Your task to perform on an android device: Open Reddit.com Image 0: 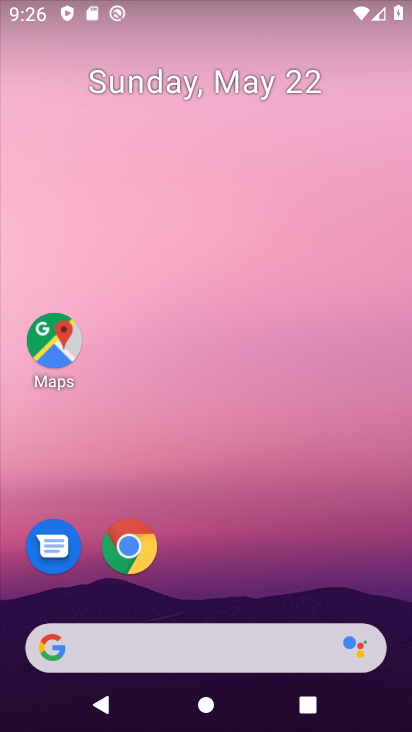
Step 0: click (142, 550)
Your task to perform on an android device: Open Reddit.com Image 1: 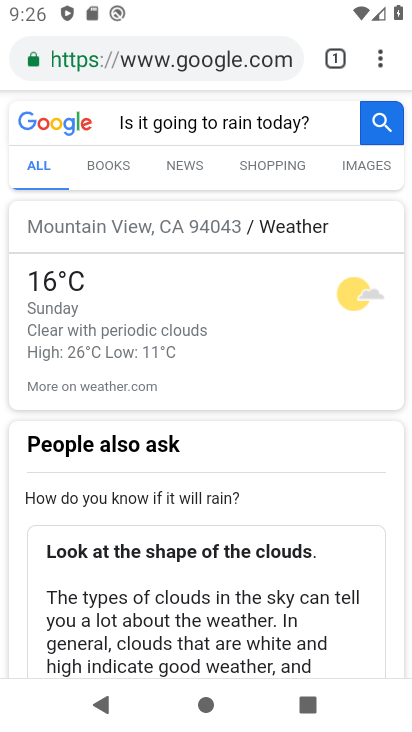
Step 1: click (262, 59)
Your task to perform on an android device: Open Reddit.com Image 2: 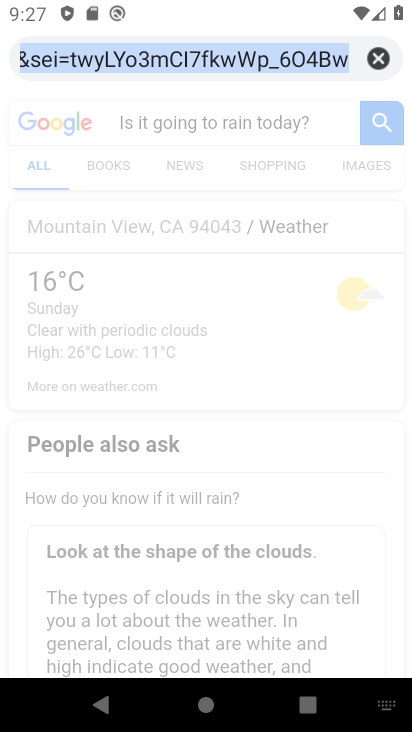
Step 2: type "Reddit.com"
Your task to perform on an android device: Open Reddit.com Image 3: 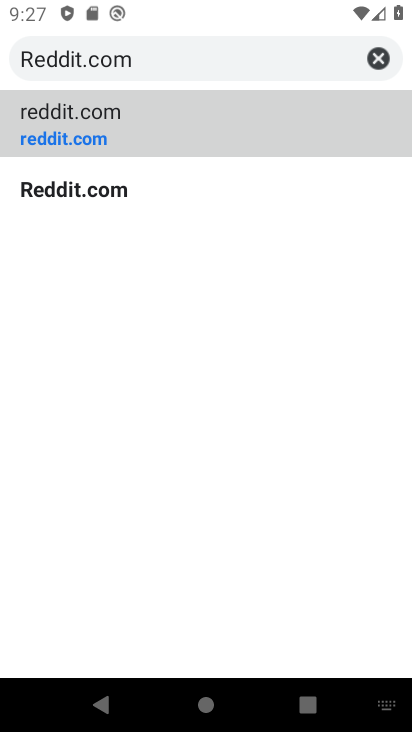
Step 3: click (36, 146)
Your task to perform on an android device: Open Reddit.com Image 4: 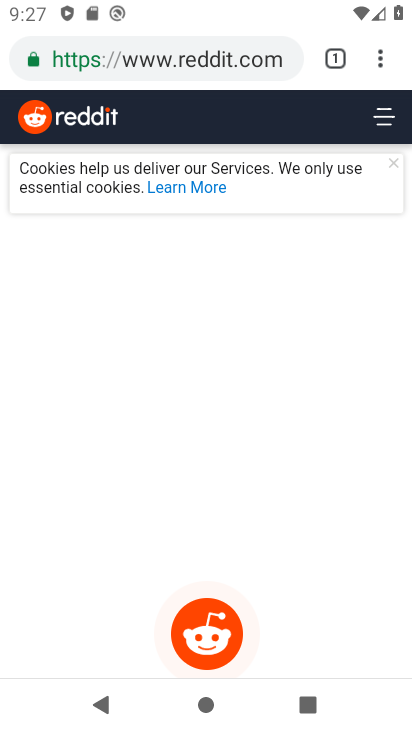
Step 4: task complete